Your task to perform on an android device: Open the stopwatch Image 0: 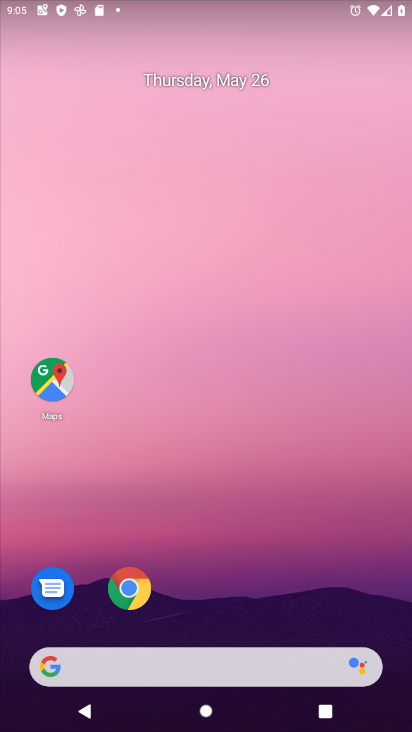
Step 0: drag from (363, 553) to (274, 50)
Your task to perform on an android device: Open the stopwatch Image 1: 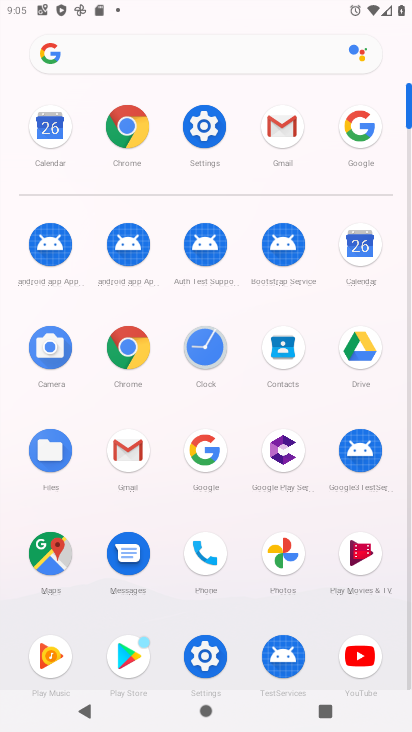
Step 1: click (200, 343)
Your task to perform on an android device: Open the stopwatch Image 2: 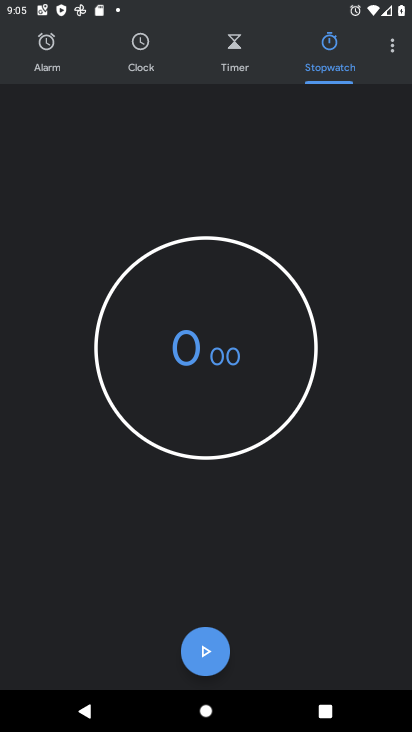
Step 2: task complete